Your task to perform on an android device: Show me recent news Image 0: 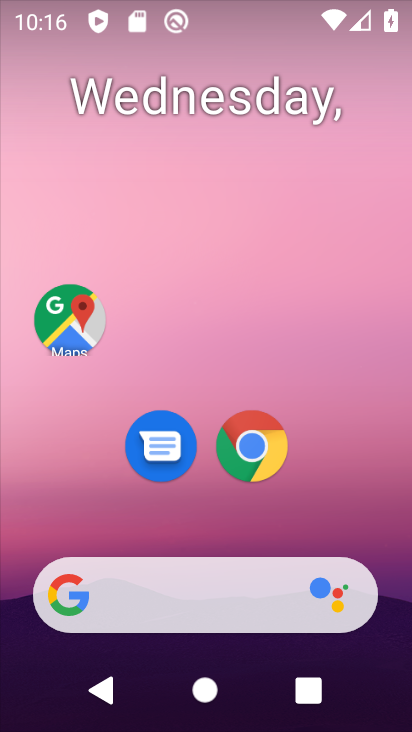
Step 0: drag from (322, 562) to (352, 210)
Your task to perform on an android device: Show me recent news Image 1: 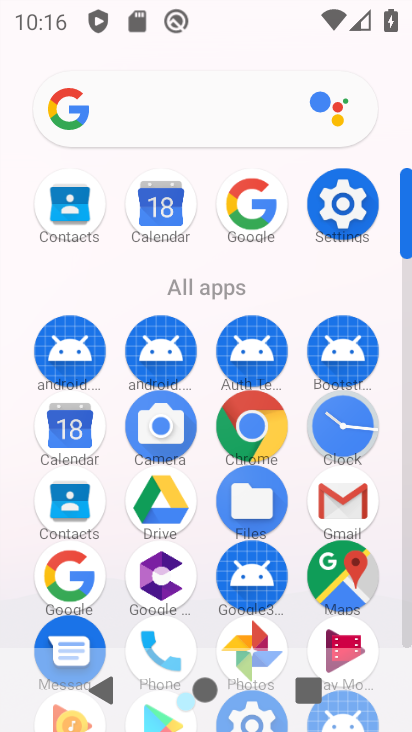
Step 1: click (30, 577)
Your task to perform on an android device: Show me recent news Image 2: 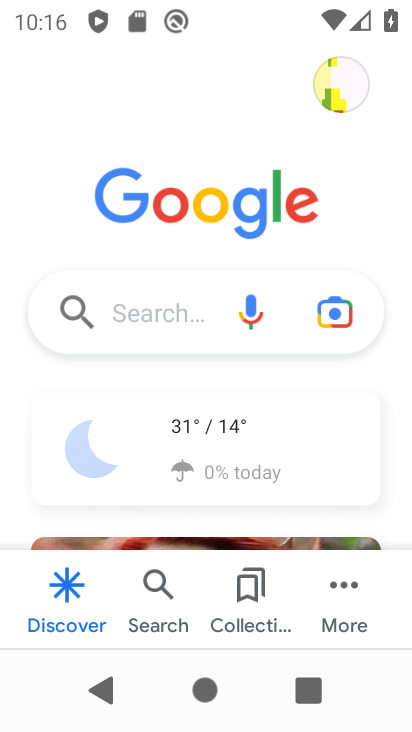
Step 2: click (136, 305)
Your task to perform on an android device: Show me recent news Image 3: 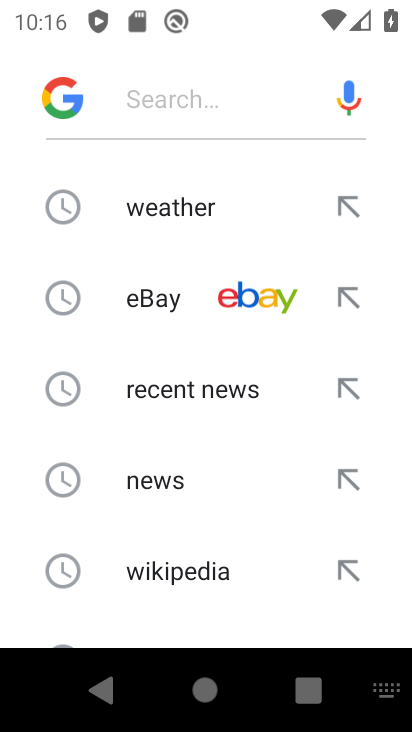
Step 3: click (185, 397)
Your task to perform on an android device: Show me recent news Image 4: 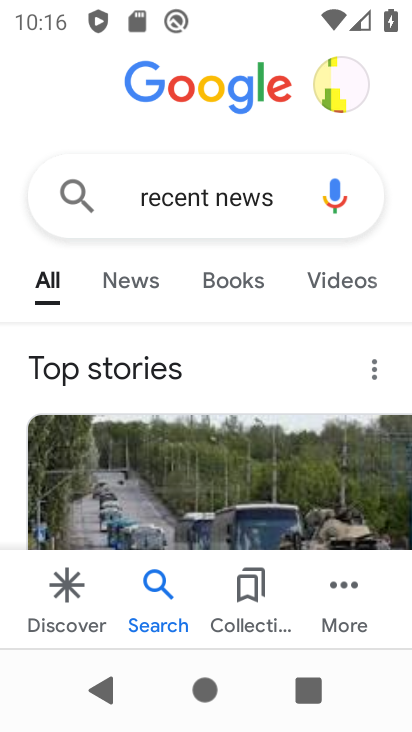
Step 4: task complete